Your task to perform on an android device: Open display settings Image 0: 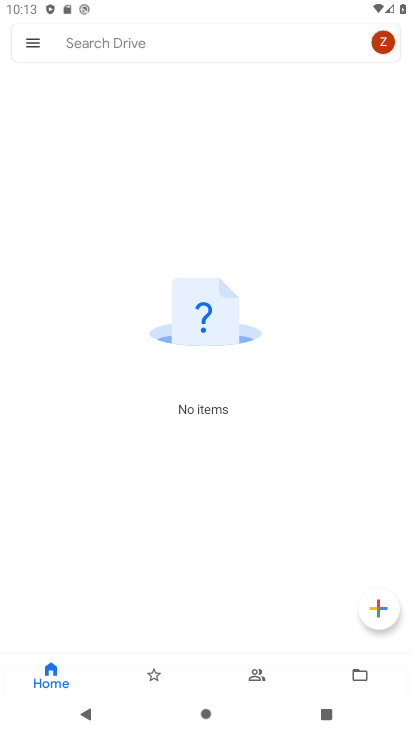
Step 0: press home button
Your task to perform on an android device: Open display settings Image 1: 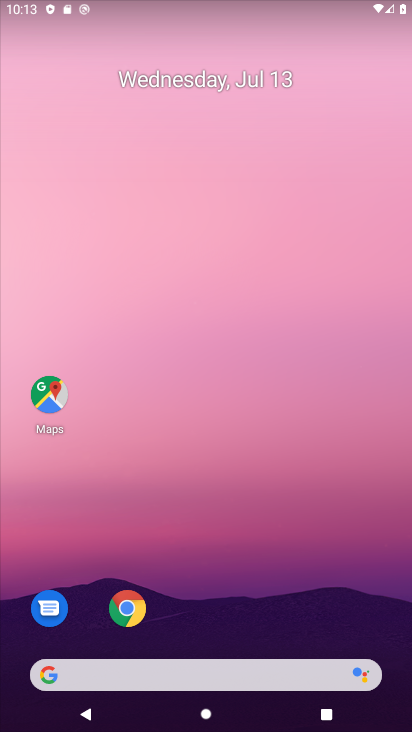
Step 1: drag from (327, 443) to (280, 209)
Your task to perform on an android device: Open display settings Image 2: 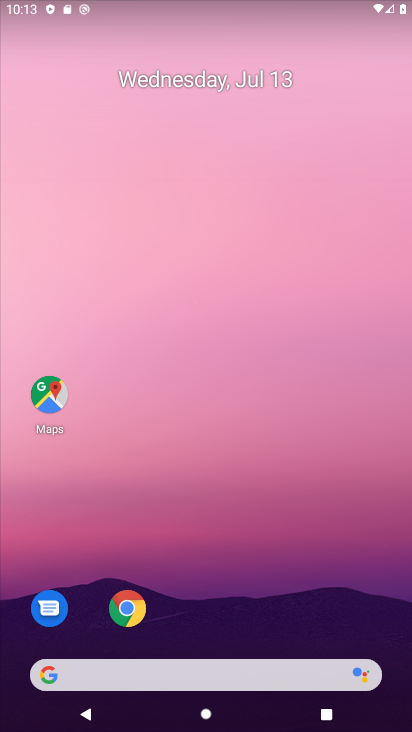
Step 2: drag from (252, 290) to (334, 0)
Your task to perform on an android device: Open display settings Image 3: 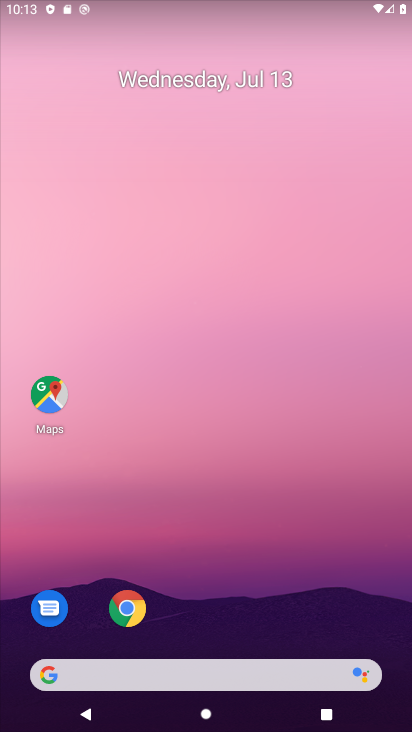
Step 3: drag from (230, 627) to (362, 4)
Your task to perform on an android device: Open display settings Image 4: 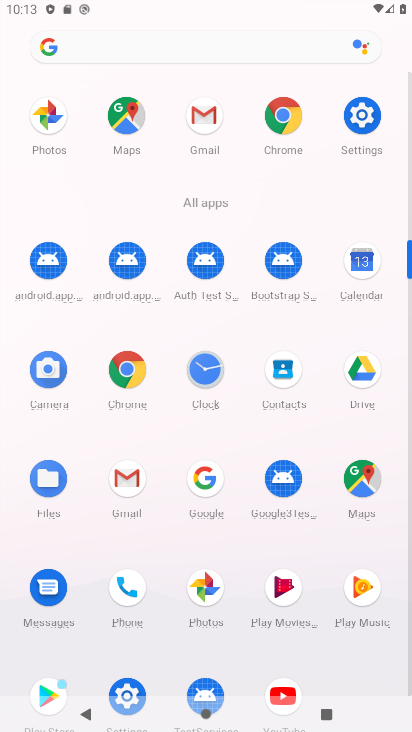
Step 4: click (355, 110)
Your task to perform on an android device: Open display settings Image 5: 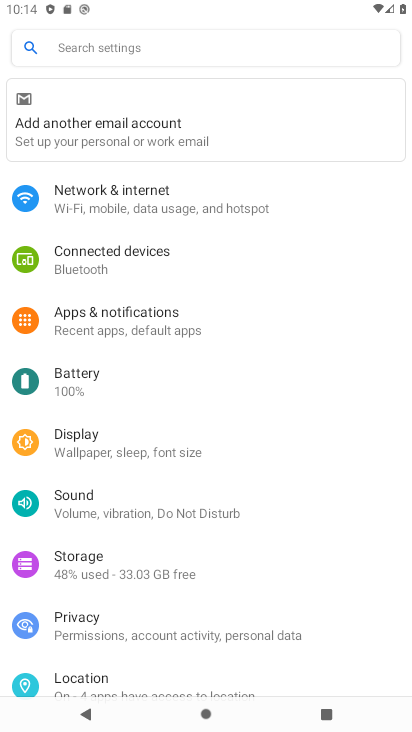
Step 5: click (87, 435)
Your task to perform on an android device: Open display settings Image 6: 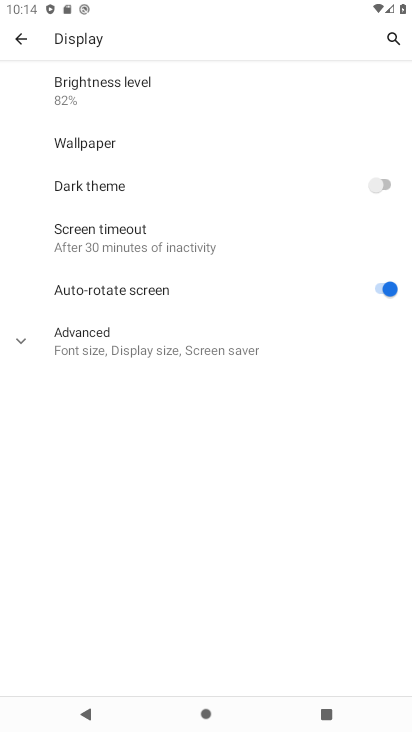
Step 6: task complete